Your task to perform on an android device: What's the weather? Image 0: 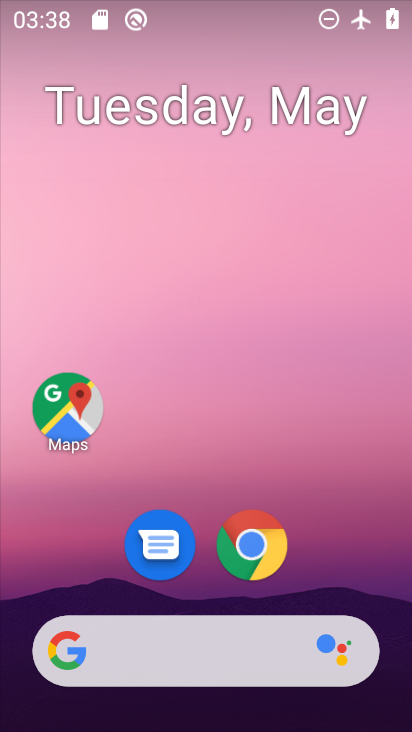
Step 0: click (189, 654)
Your task to perform on an android device: What's the weather? Image 1: 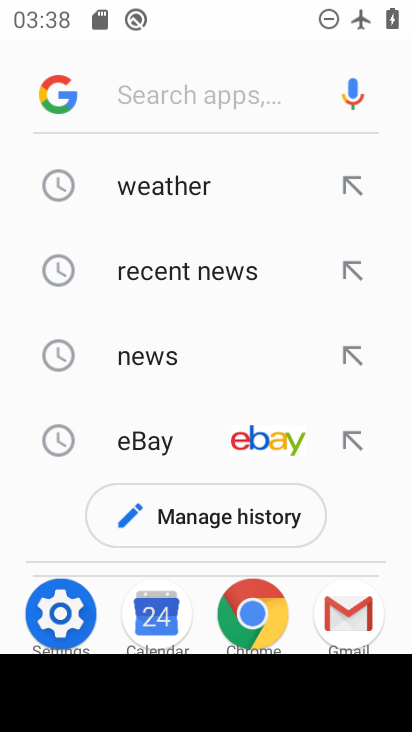
Step 1: click (158, 191)
Your task to perform on an android device: What's the weather? Image 2: 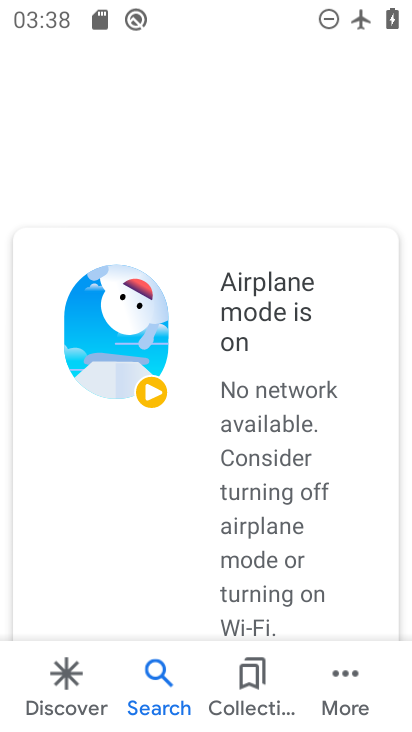
Step 2: task complete